Your task to perform on an android device: check out phone information Image 0: 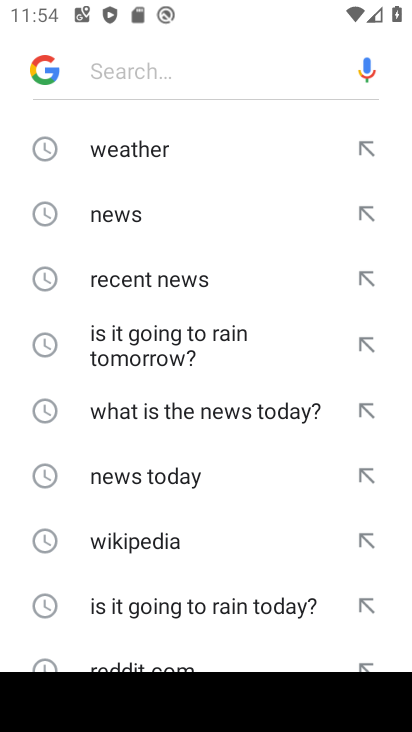
Step 0: press home button
Your task to perform on an android device: check out phone information Image 1: 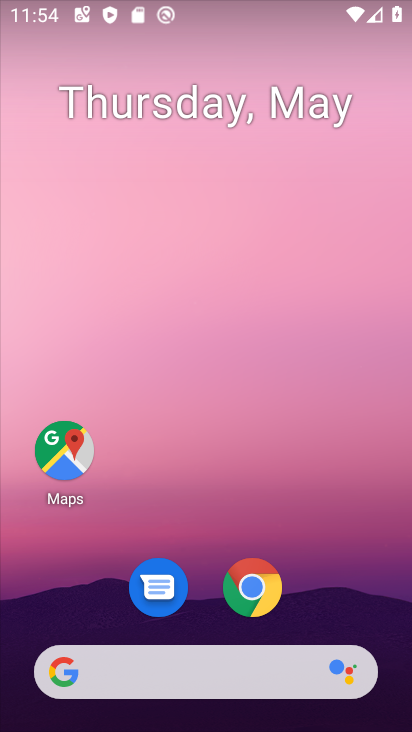
Step 1: drag from (138, 728) to (136, 51)
Your task to perform on an android device: check out phone information Image 2: 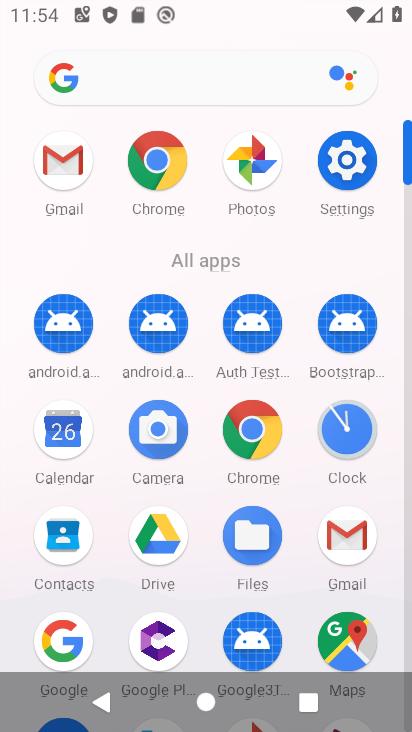
Step 2: click (362, 163)
Your task to perform on an android device: check out phone information Image 3: 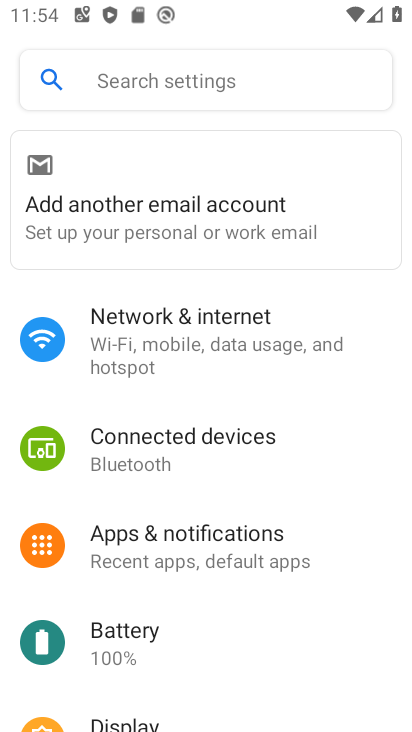
Step 3: drag from (282, 671) to (264, 152)
Your task to perform on an android device: check out phone information Image 4: 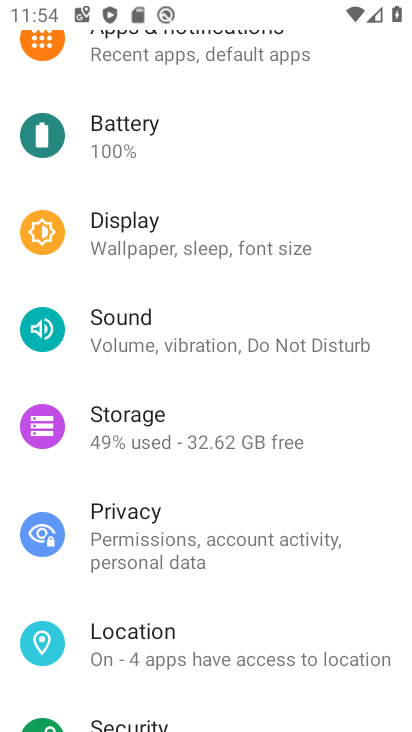
Step 4: drag from (306, 701) to (354, 174)
Your task to perform on an android device: check out phone information Image 5: 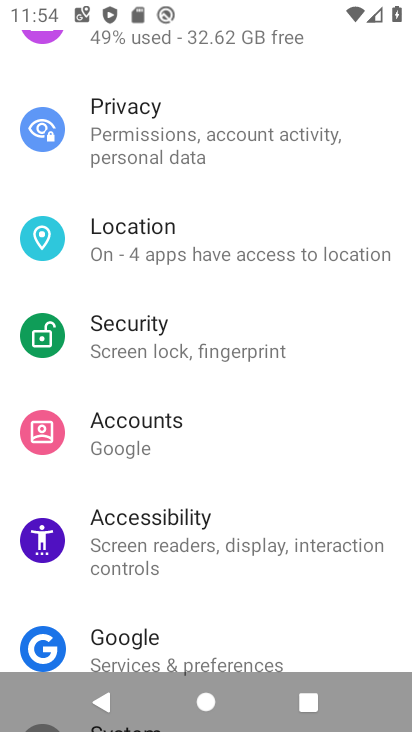
Step 5: drag from (315, 640) to (300, 125)
Your task to perform on an android device: check out phone information Image 6: 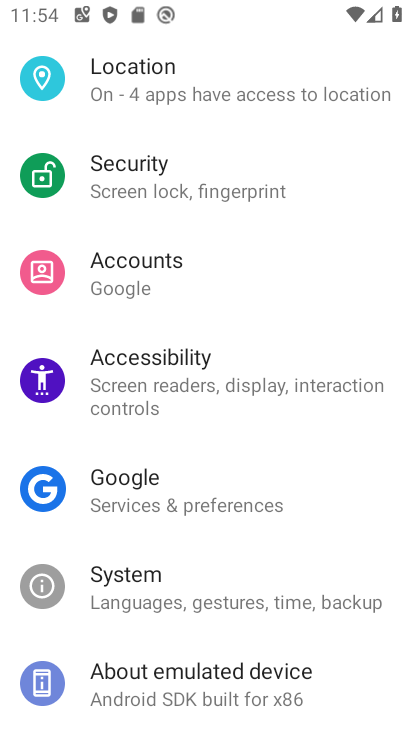
Step 6: click (213, 688)
Your task to perform on an android device: check out phone information Image 7: 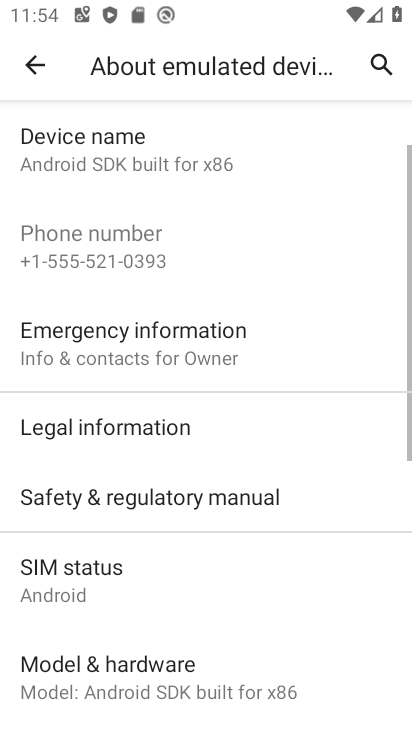
Step 7: task complete